Your task to perform on an android device: toggle javascript in the chrome app Image 0: 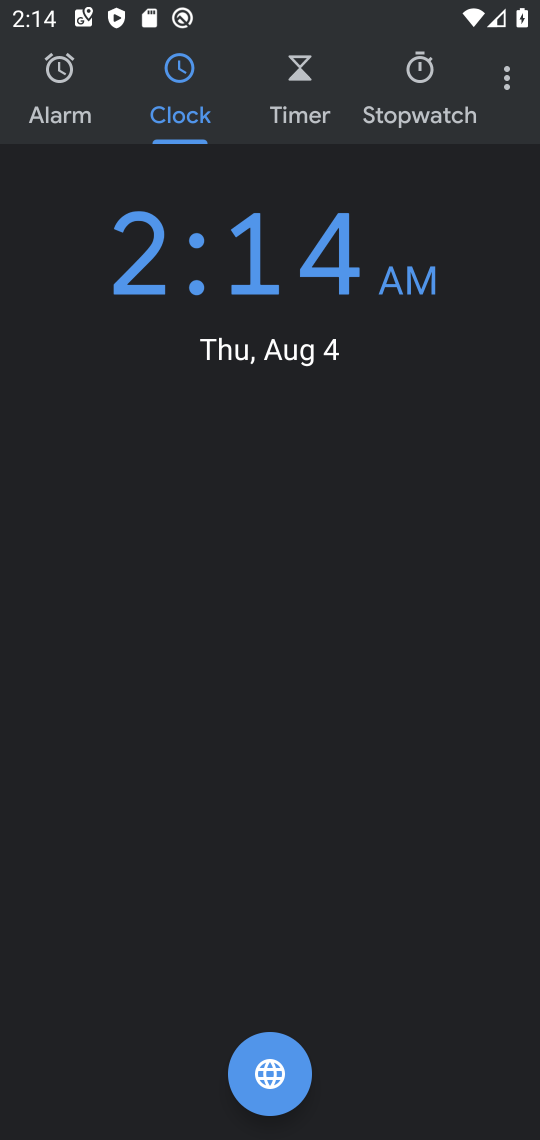
Step 0: press home button
Your task to perform on an android device: toggle javascript in the chrome app Image 1: 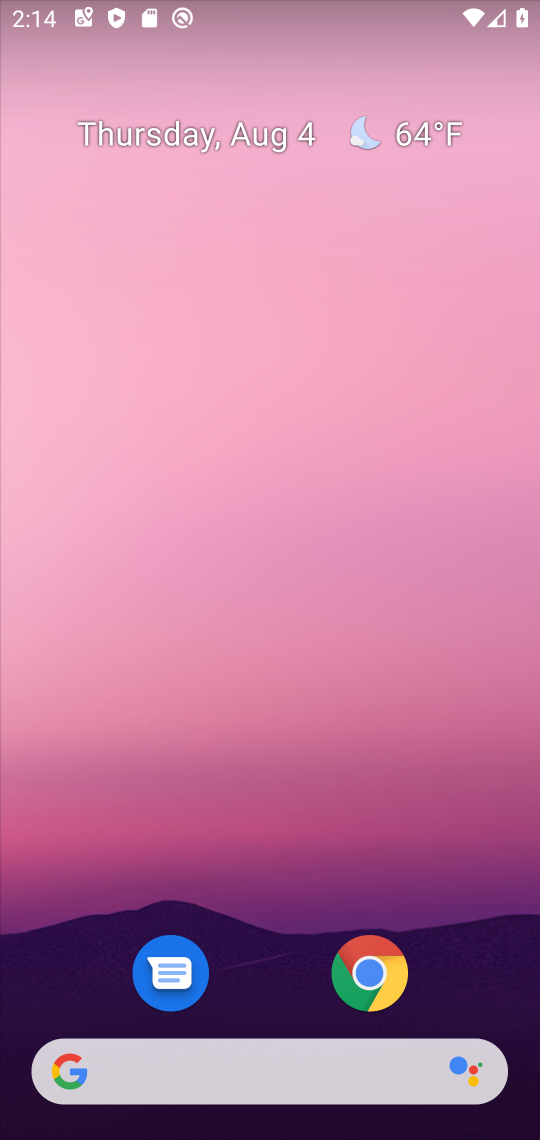
Step 1: click (348, 1004)
Your task to perform on an android device: toggle javascript in the chrome app Image 2: 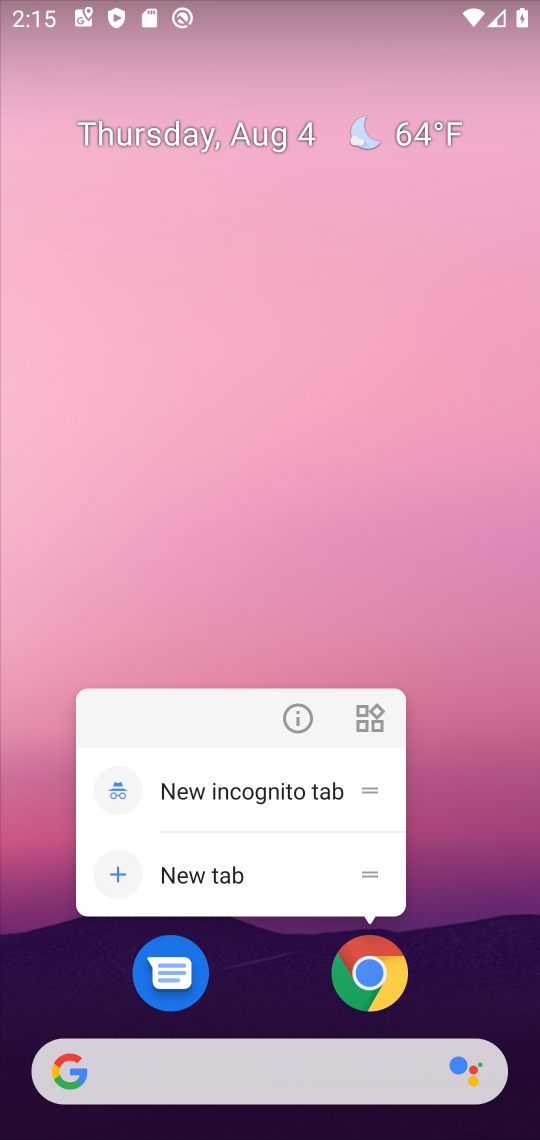
Step 2: click (358, 979)
Your task to perform on an android device: toggle javascript in the chrome app Image 3: 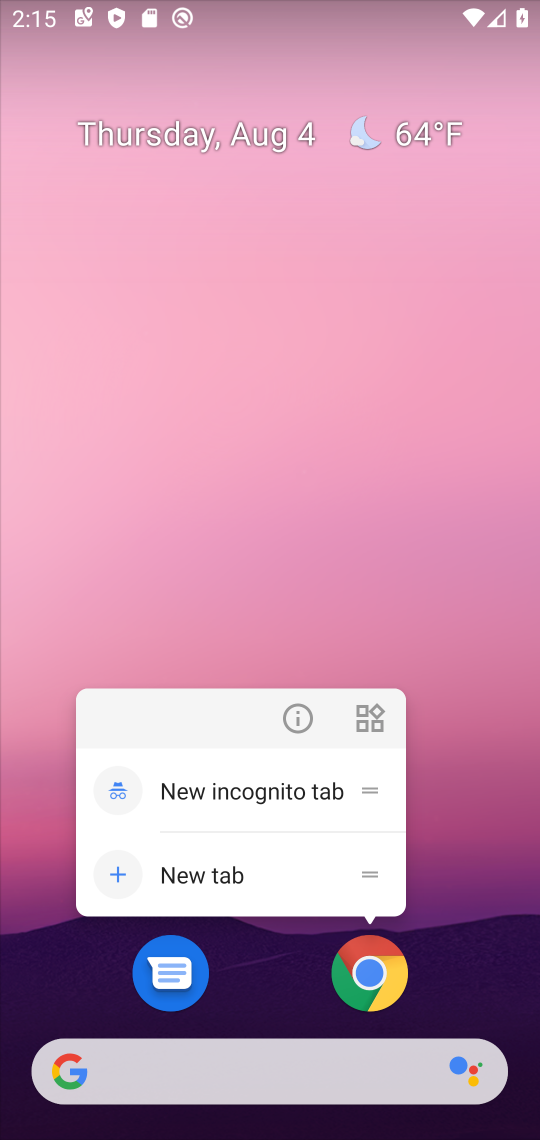
Step 3: click (383, 968)
Your task to perform on an android device: toggle javascript in the chrome app Image 4: 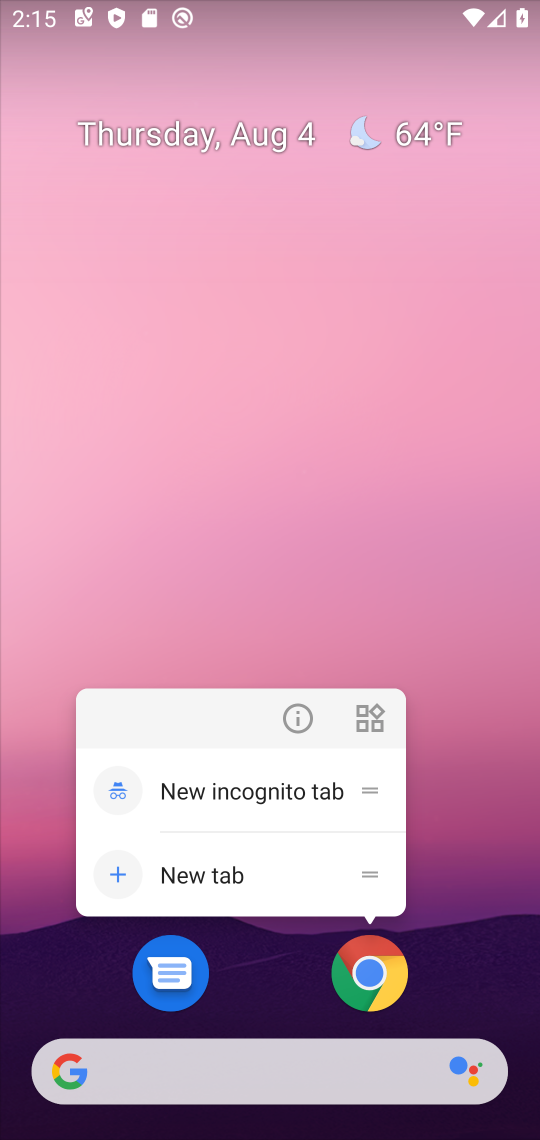
Step 4: click (387, 961)
Your task to perform on an android device: toggle javascript in the chrome app Image 5: 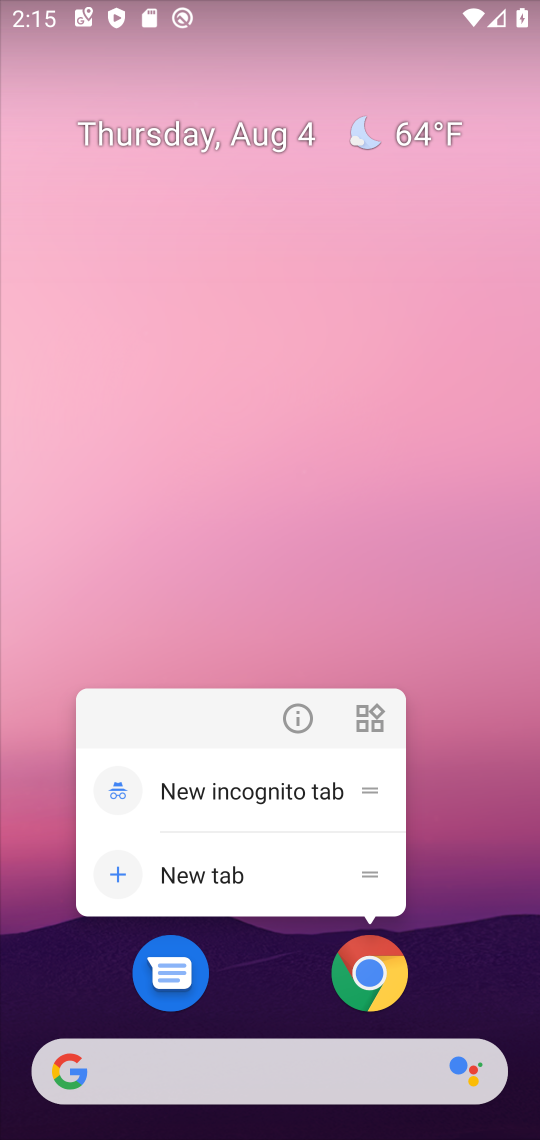
Step 5: drag from (297, 988) to (337, 0)
Your task to perform on an android device: toggle javascript in the chrome app Image 6: 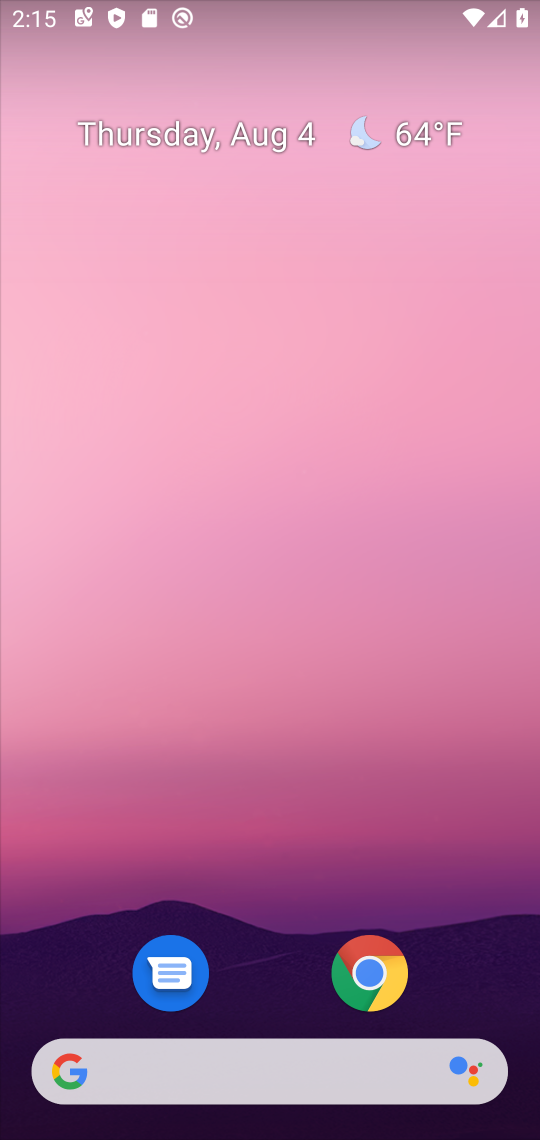
Step 6: drag from (319, 995) to (253, 100)
Your task to perform on an android device: toggle javascript in the chrome app Image 7: 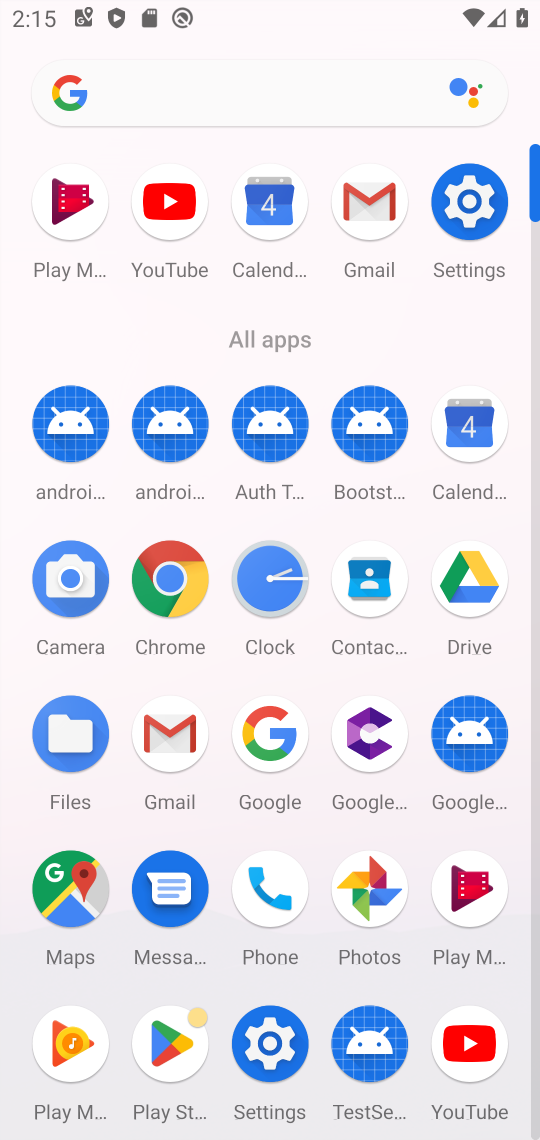
Step 7: click (172, 602)
Your task to perform on an android device: toggle javascript in the chrome app Image 8: 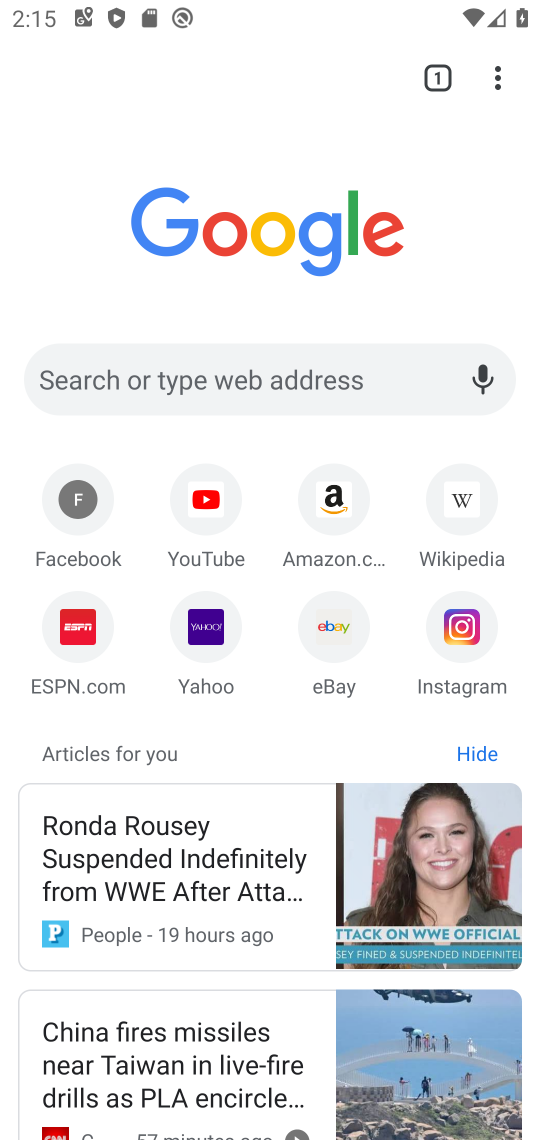
Step 8: click (492, 81)
Your task to perform on an android device: toggle javascript in the chrome app Image 9: 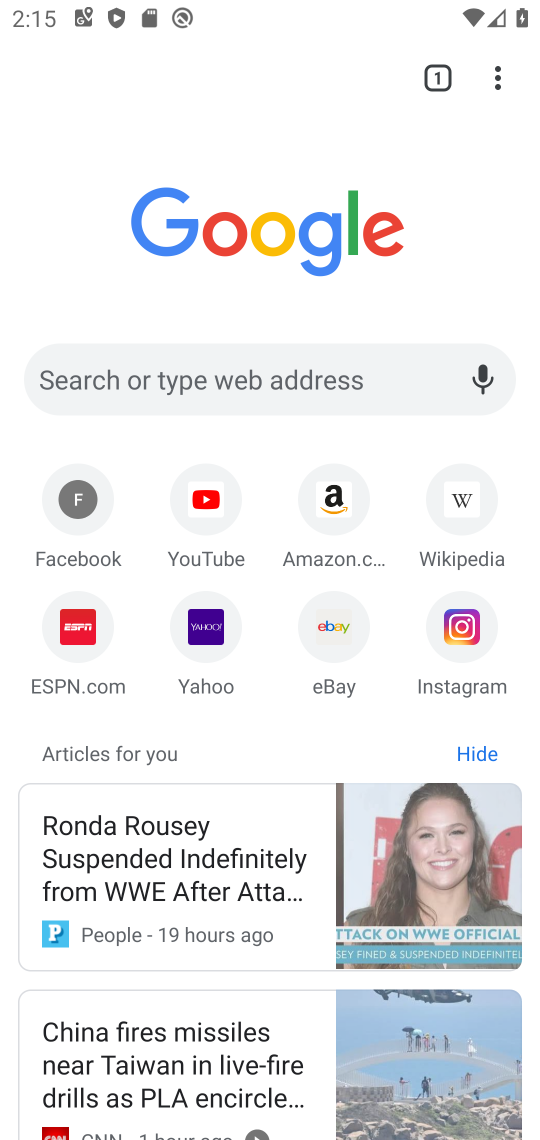
Step 9: drag from (490, 81) to (216, 664)
Your task to perform on an android device: toggle javascript in the chrome app Image 10: 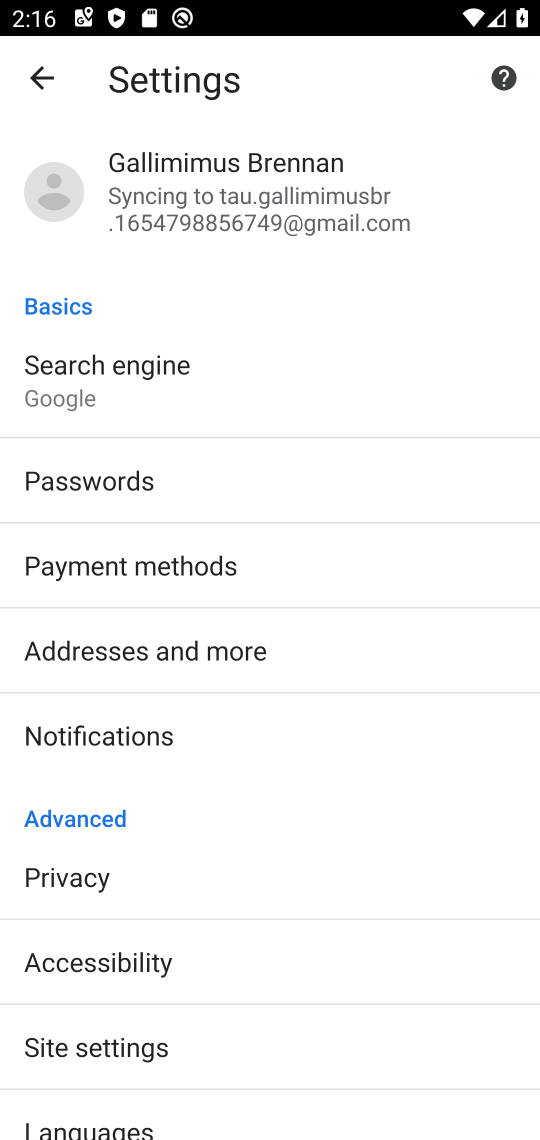
Step 10: click (109, 1019)
Your task to perform on an android device: toggle javascript in the chrome app Image 11: 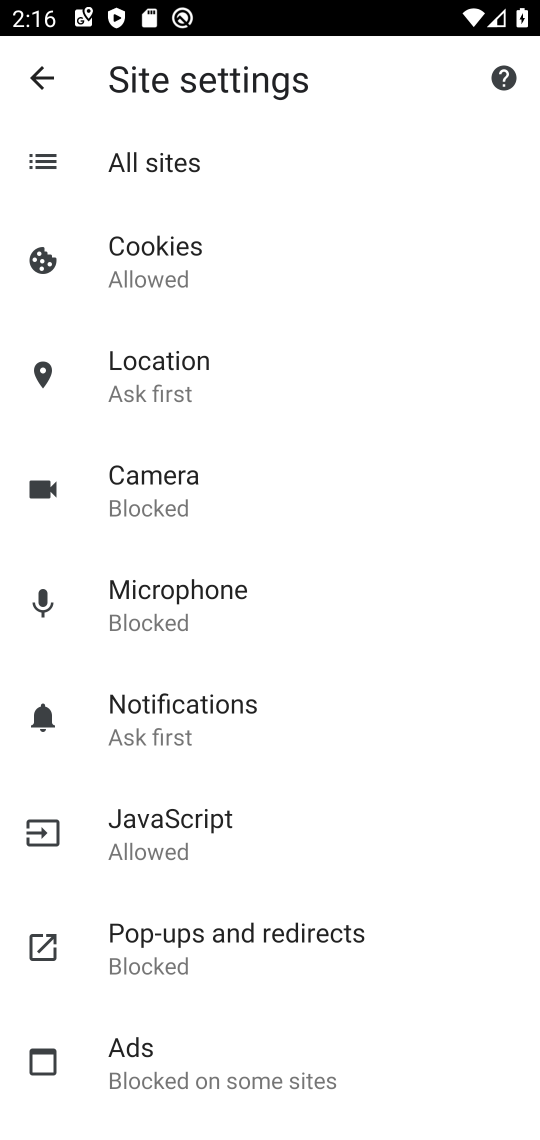
Step 11: click (165, 819)
Your task to perform on an android device: toggle javascript in the chrome app Image 12: 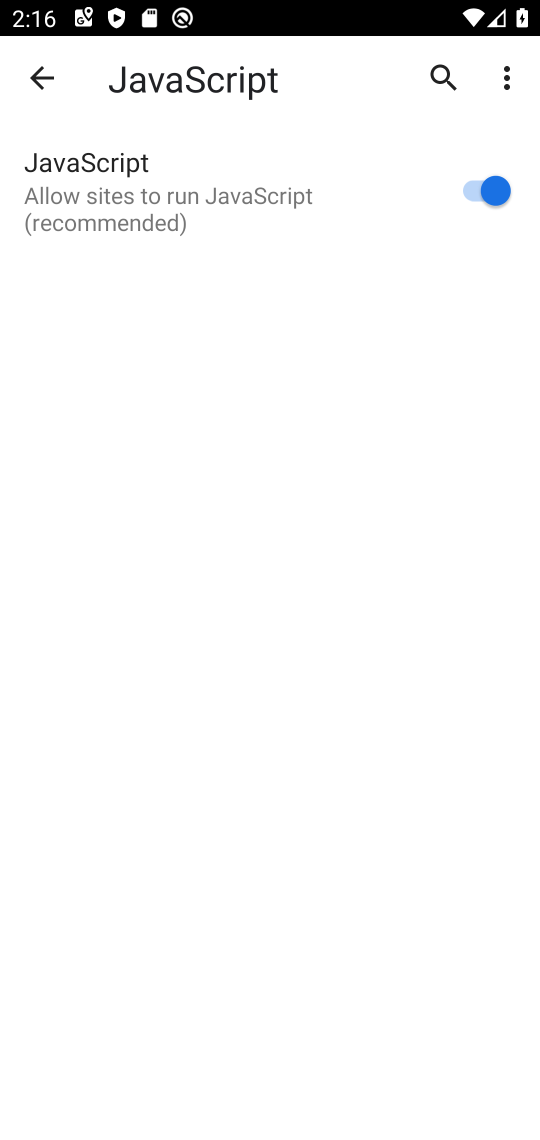
Step 12: click (490, 190)
Your task to perform on an android device: toggle javascript in the chrome app Image 13: 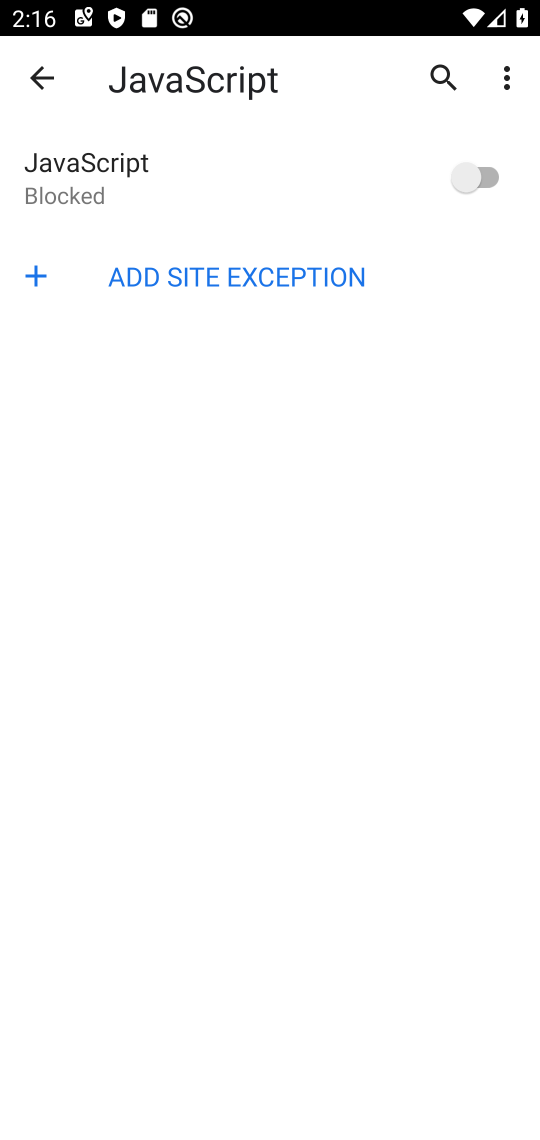
Step 13: task complete